Your task to perform on an android device: Search for sushi restaurants on Maps Image 0: 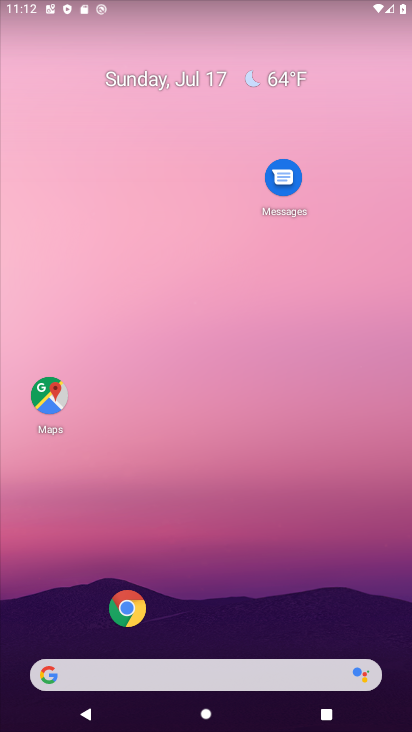
Step 0: click (40, 396)
Your task to perform on an android device: Search for sushi restaurants on Maps Image 1: 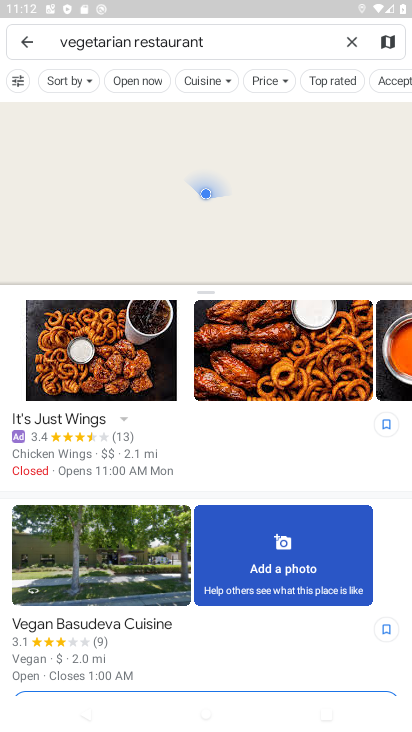
Step 1: click (348, 44)
Your task to perform on an android device: Search for sushi restaurants on Maps Image 2: 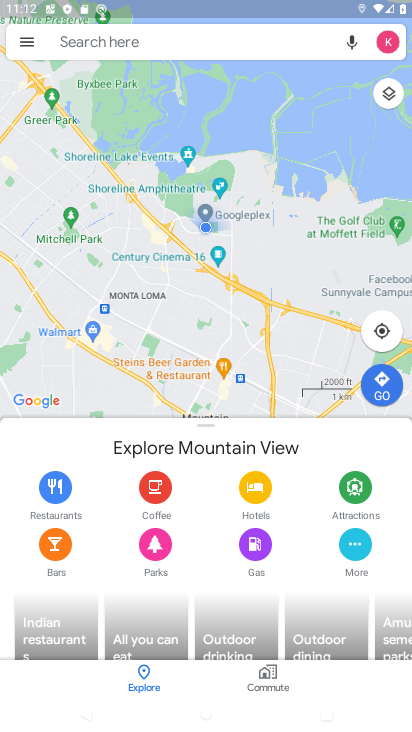
Step 2: click (112, 39)
Your task to perform on an android device: Search for sushi restaurants on Maps Image 3: 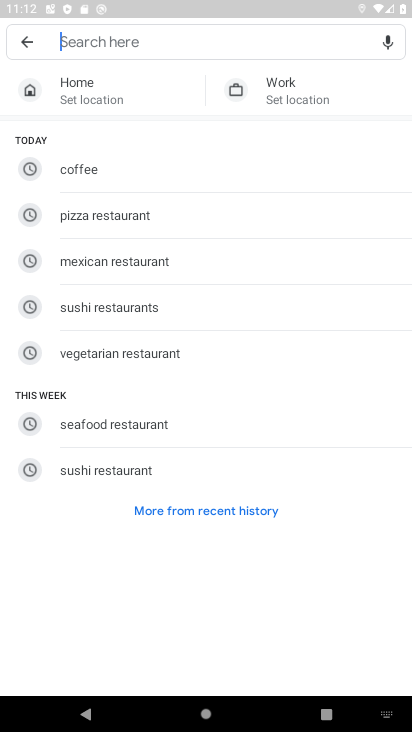
Step 3: click (87, 467)
Your task to perform on an android device: Search for sushi restaurants on Maps Image 4: 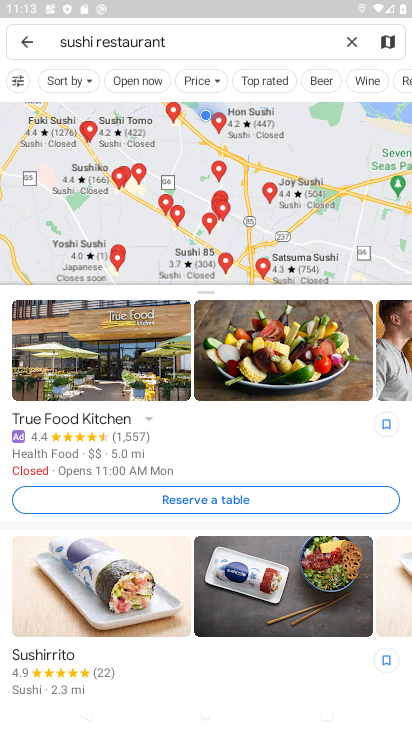
Step 4: task complete